Your task to perform on an android device: allow notifications from all sites in the chrome app Image 0: 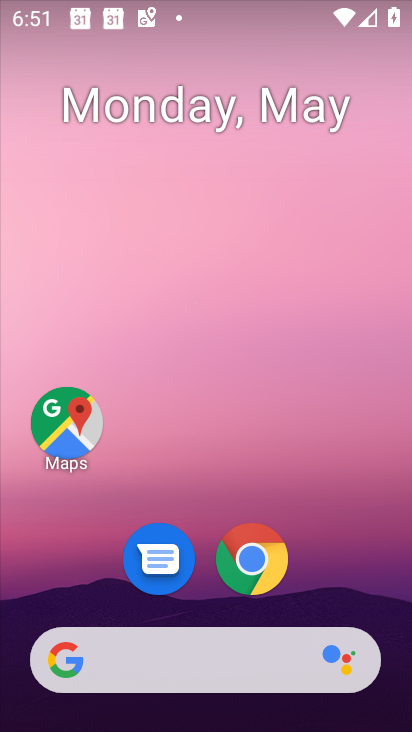
Step 0: drag from (394, 621) to (367, 6)
Your task to perform on an android device: allow notifications from all sites in the chrome app Image 1: 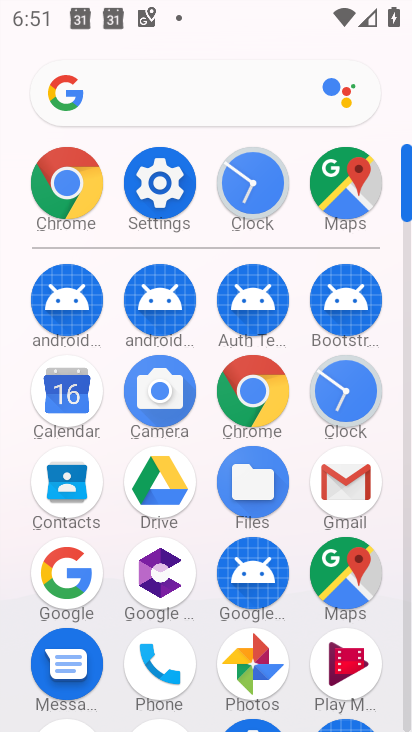
Step 1: click (265, 406)
Your task to perform on an android device: allow notifications from all sites in the chrome app Image 2: 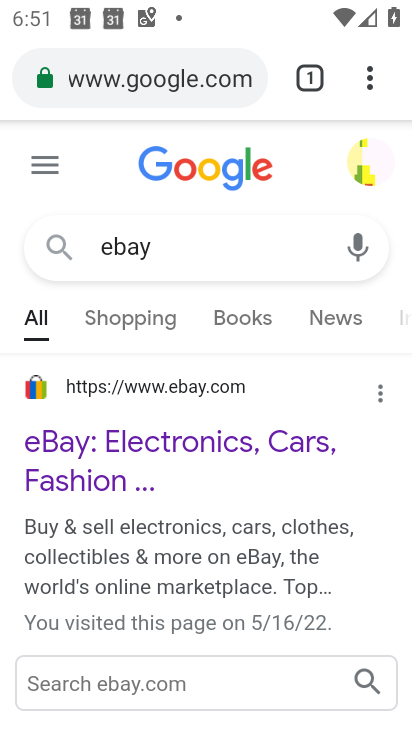
Step 2: press back button
Your task to perform on an android device: allow notifications from all sites in the chrome app Image 3: 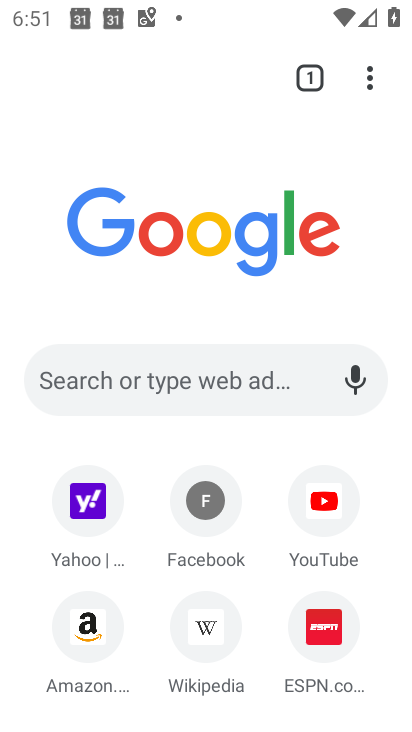
Step 3: click (371, 74)
Your task to perform on an android device: allow notifications from all sites in the chrome app Image 4: 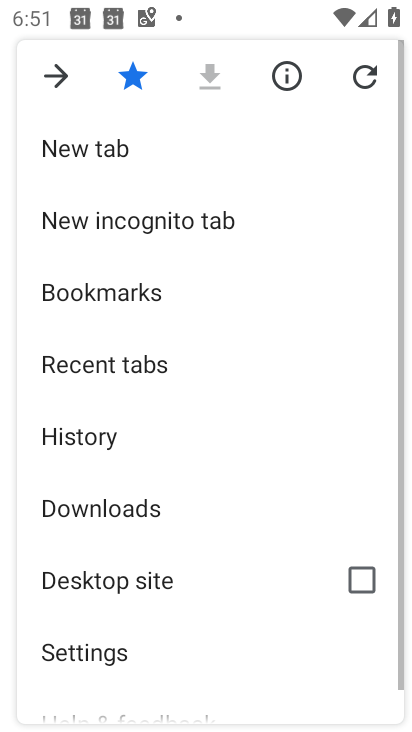
Step 4: drag from (209, 630) to (189, 662)
Your task to perform on an android device: allow notifications from all sites in the chrome app Image 5: 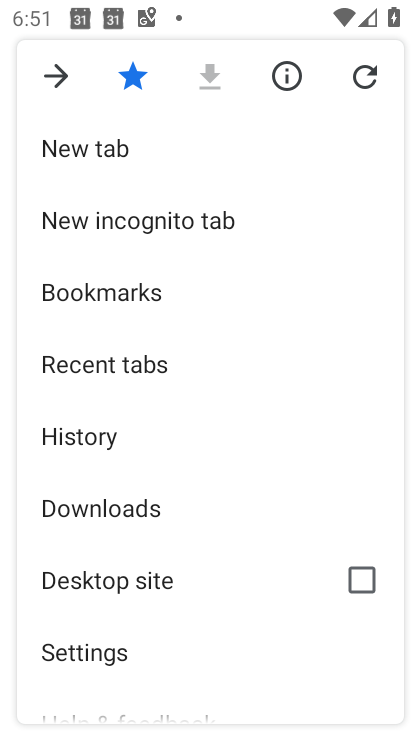
Step 5: click (189, 662)
Your task to perform on an android device: allow notifications from all sites in the chrome app Image 6: 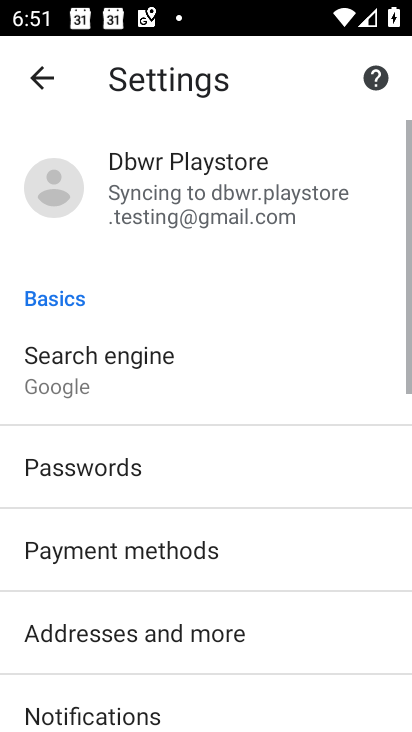
Step 6: drag from (189, 662) to (196, 294)
Your task to perform on an android device: allow notifications from all sites in the chrome app Image 7: 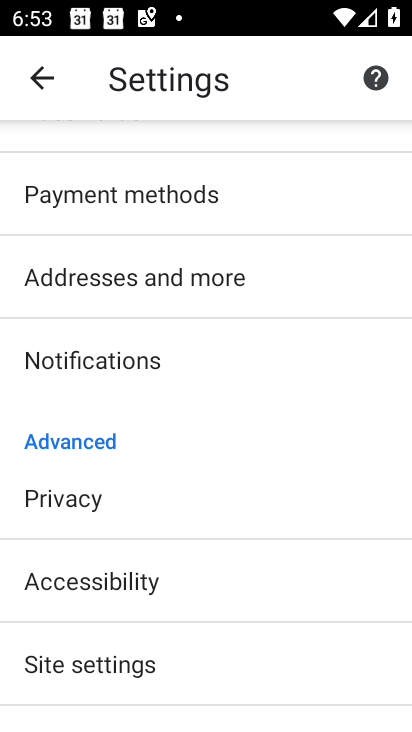
Step 7: click (172, 350)
Your task to perform on an android device: allow notifications from all sites in the chrome app Image 8: 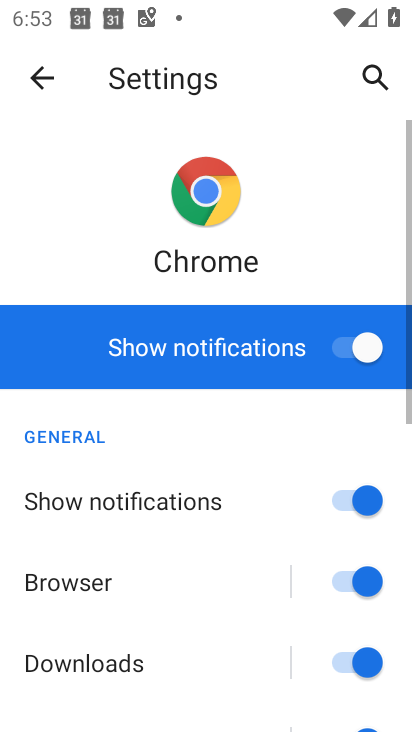
Step 8: task complete